Your task to perform on an android device: check data usage Image 0: 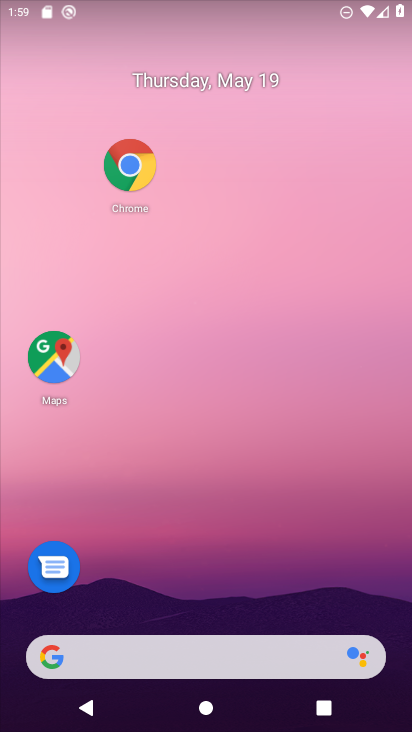
Step 0: drag from (234, 477) to (250, 377)
Your task to perform on an android device: check data usage Image 1: 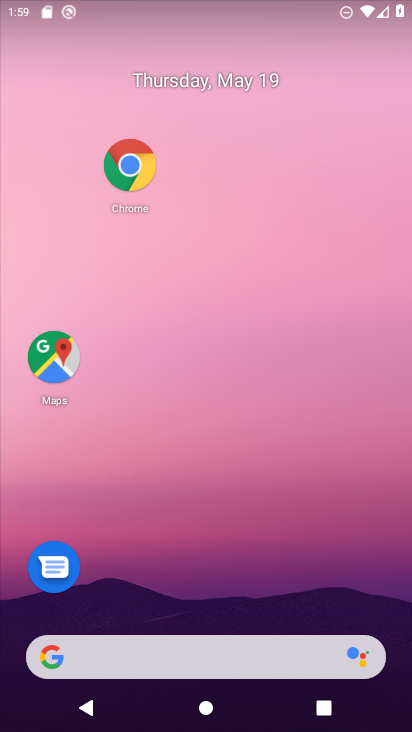
Step 1: drag from (228, 590) to (364, 75)
Your task to perform on an android device: check data usage Image 2: 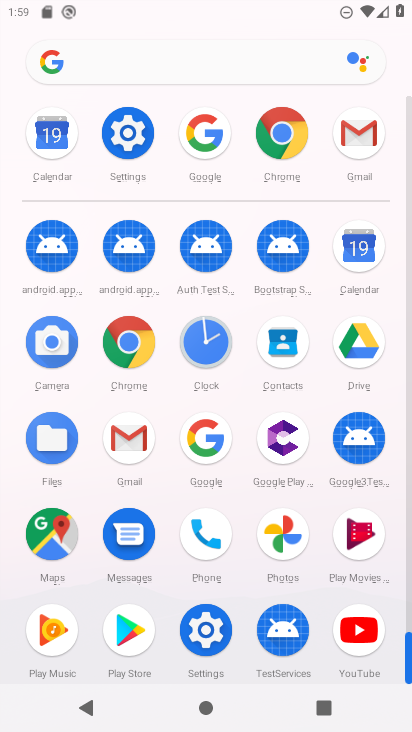
Step 2: click (116, 139)
Your task to perform on an android device: check data usage Image 3: 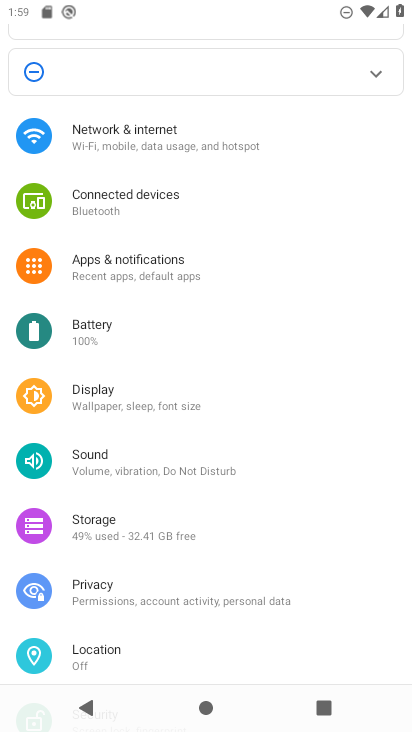
Step 3: click (119, 134)
Your task to perform on an android device: check data usage Image 4: 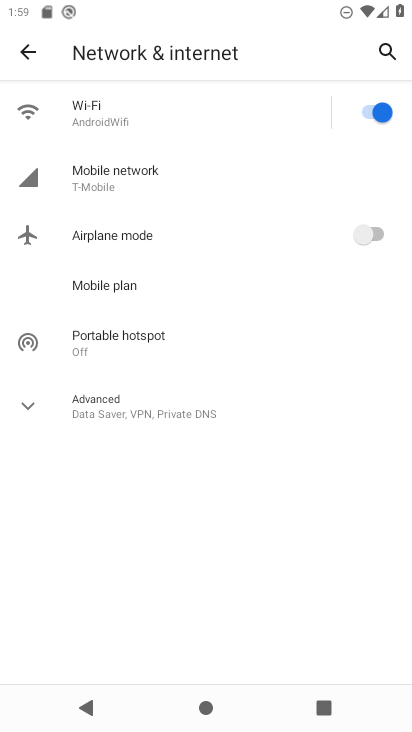
Step 4: click (131, 172)
Your task to perform on an android device: check data usage Image 5: 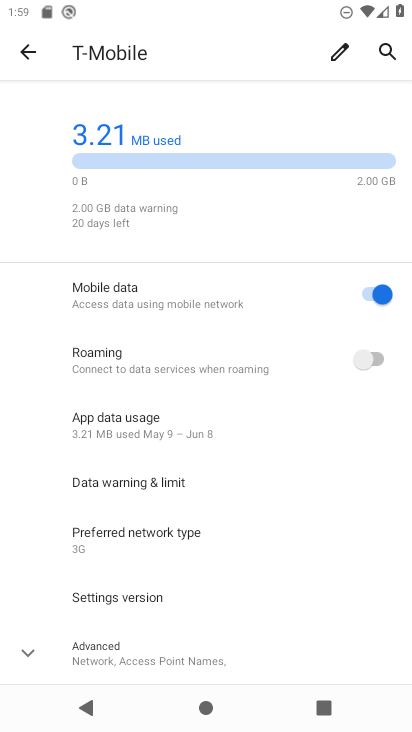
Step 5: task complete